Your task to perform on an android device: Clear the shopping cart on walmart.com. Image 0: 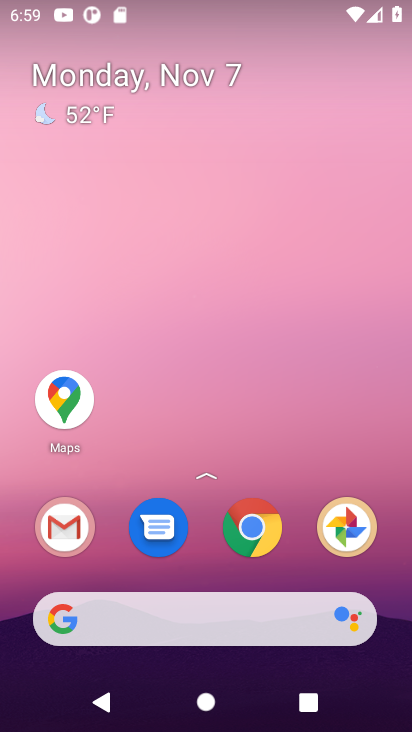
Step 0: click (249, 534)
Your task to perform on an android device: Clear the shopping cart on walmart.com. Image 1: 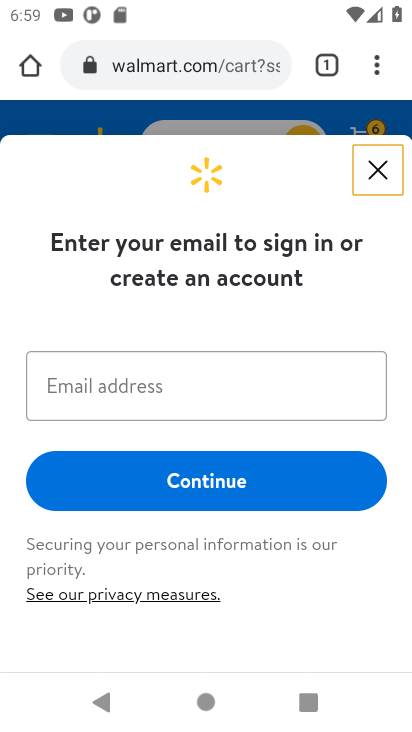
Step 1: click (183, 72)
Your task to perform on an android device: Clear the shopping cart on walmart.com. Image 2: 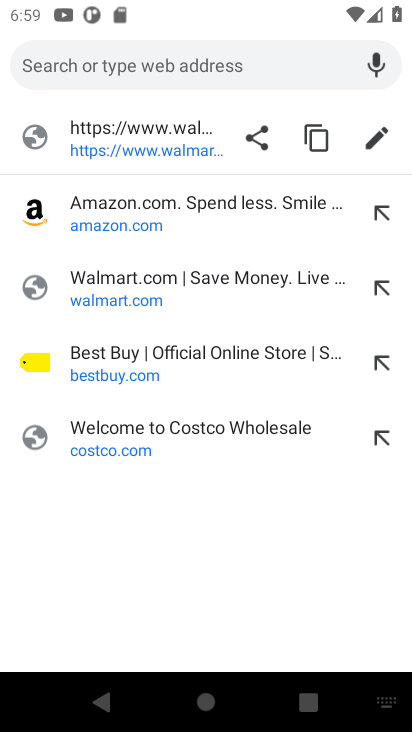
Step 2: press back button
Your task to perform on an android device: Clear the shopping cart on walmart.com. Image 3: 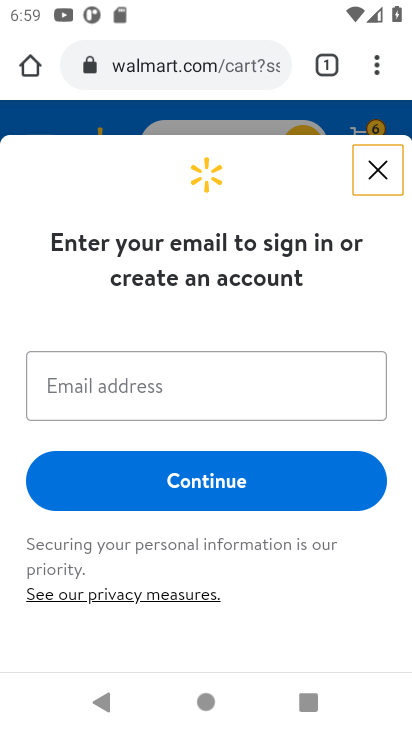
Step 3: click (372, 174)
Your task to perform on an android device: Clear the shopping cart on walmart.com. Image 4: 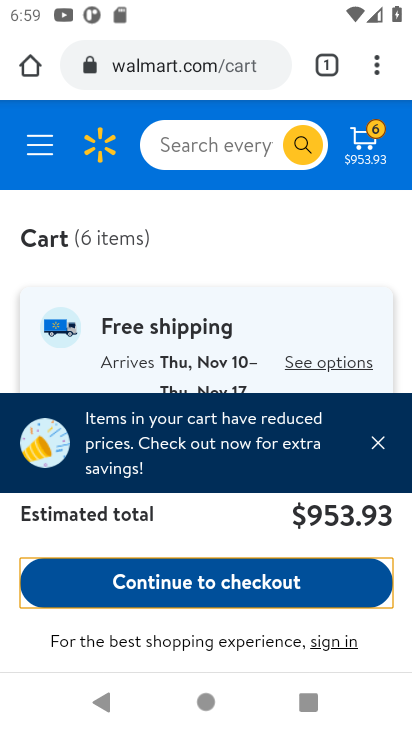
Step 4: click (377, 140)
Your task to perform on an android device: Clear the shopping cart on walmart.com. Image 5: 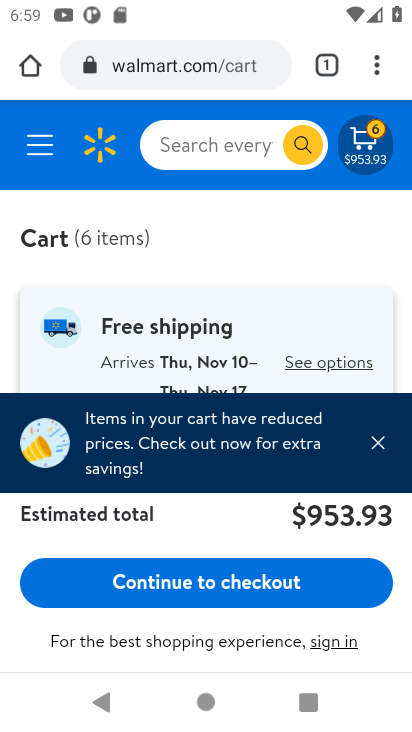
Step 5: click (377, 452)
Your task to perform on an android device: Clear the shopping cart on walmart.com. Image 6: 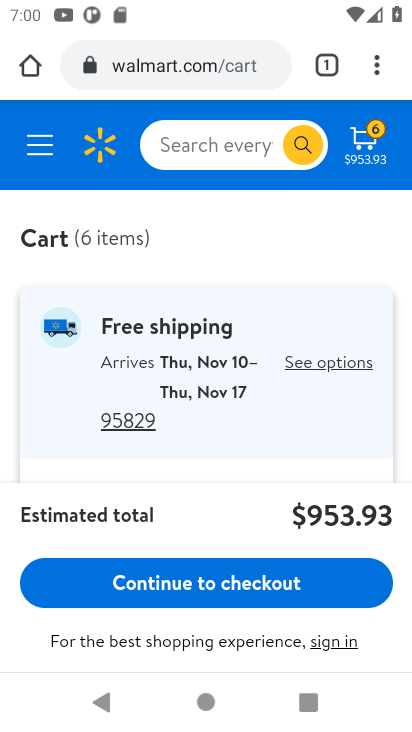
Step 6: drag from (260, 506) to (235, 218)
Your task to perform on an android device: Clear the shopping cart on walmart.com. Image 7: 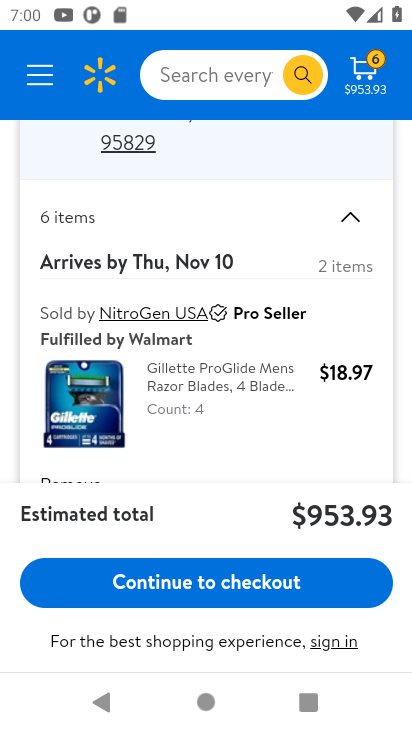
Step 7: drag from (262, 365) to (214, 23)
Your task to perform on an android device: Clear the shopping cart on walmart.com. Image 8: 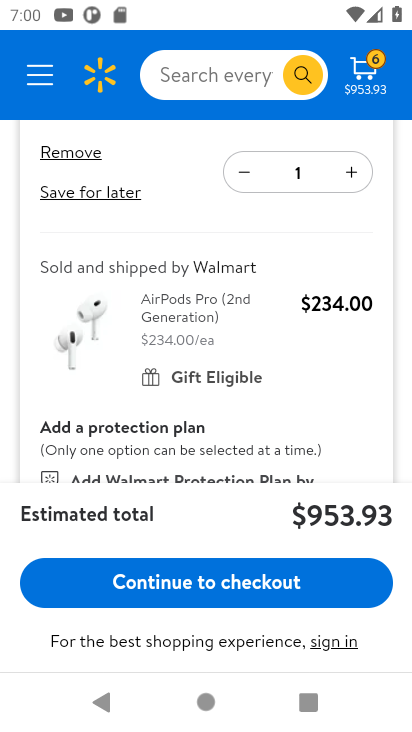
Step 8: click (83, 147)
Your task to perform on an android device: Clear the shopping cart on walmart.com. Image 9: 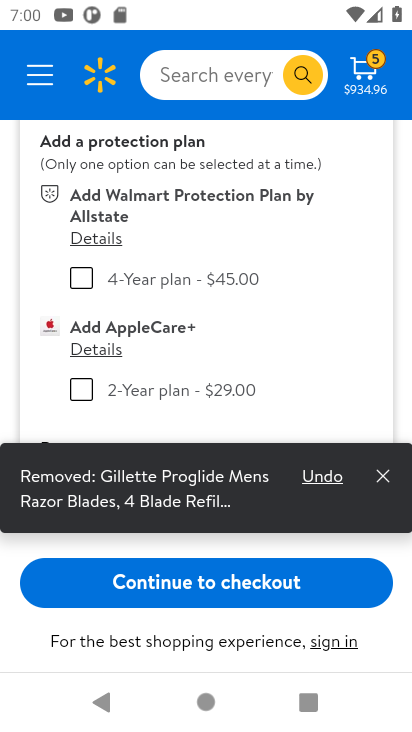
Step 9: click (389, 477)
Your task to perform on an android device: Clear the shopping cart on walmart.com. Image 10: 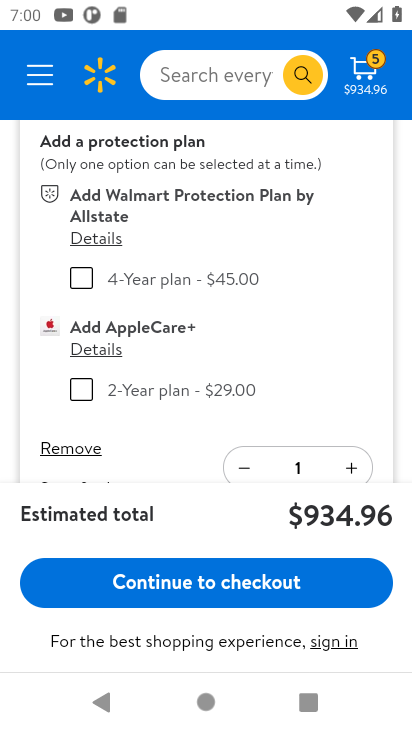
Step 10: drag from (214, 490) to (194, 351)
Your task to perform on an android device: Clear the shopping cart on walmart.com. Image 11: 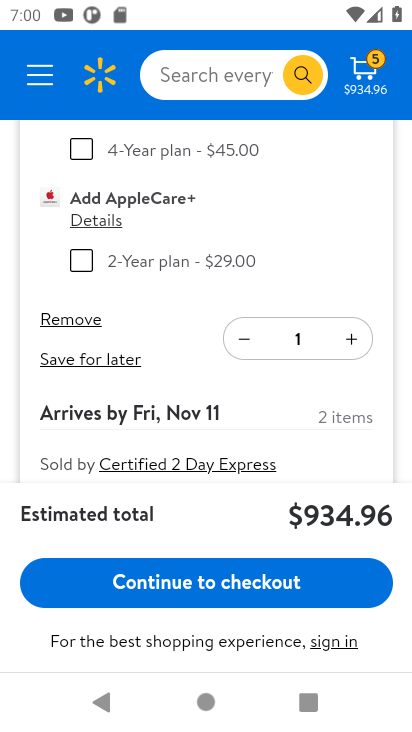
Step 11: click (60, 323)
Your task to perform on an android device: Clear the shopping cart on walmart.com. Image 12: 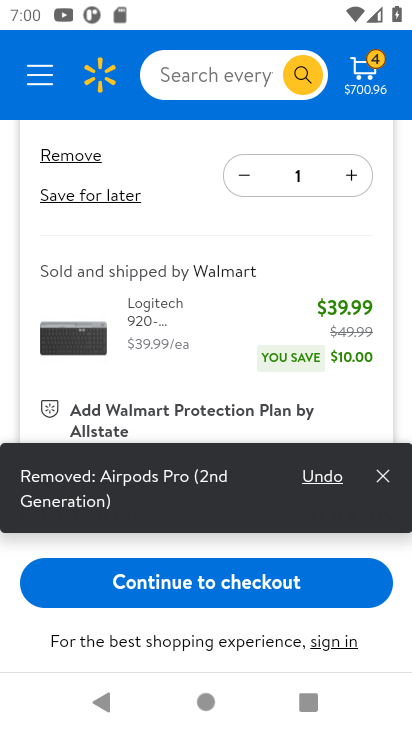
Step 12: click (57, 160)
Your task to perform on an android device: Clear the shopping cart on walmart.com. Image 13: 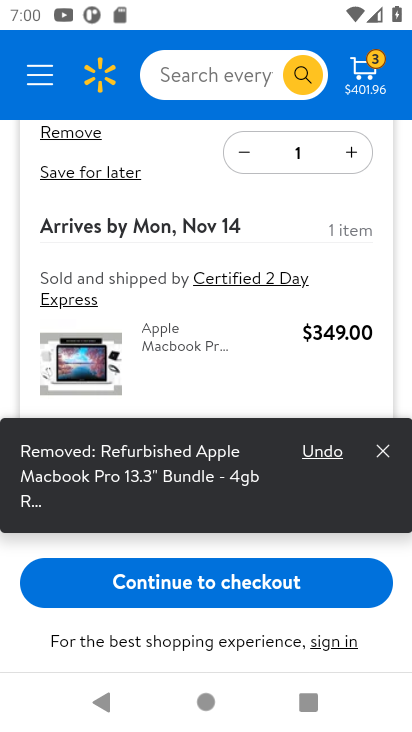
Step 13: click (60, 133)
Your task to perform on an android device: Clear the shopping cart on walmart.com. Image 14: 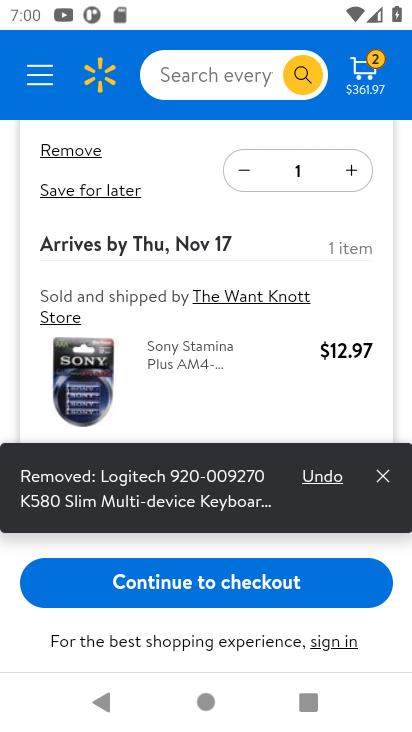
Step 14: click (72, 149)
Your task to perform on an android device: Clear the shopping cart on walmart.com. Image 15: 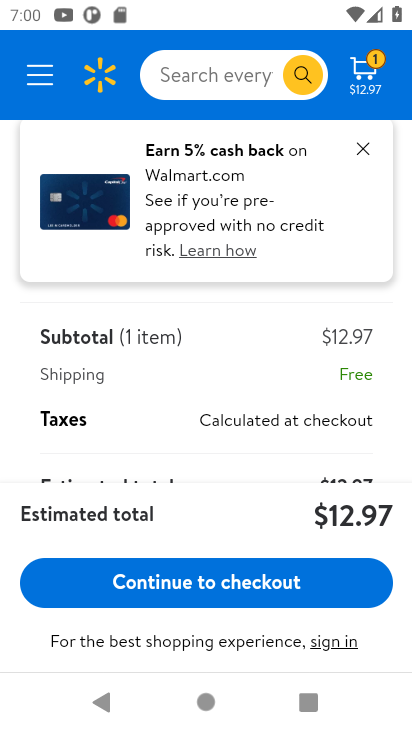
Step 15: drag from (117, 386) to (93, 180)
Your task to perform on an android device: Clear the shopping cart on walmart.com. Image 16: 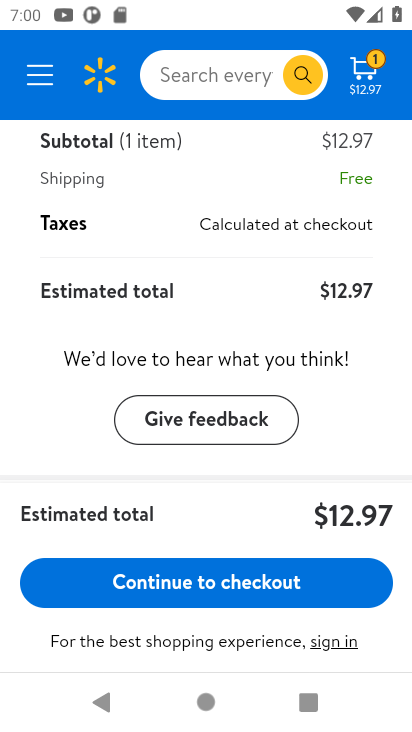
Step 16: drag from (93, 180) to (100, 626)
Your task to perform on an android device: Clear the shopping cart on walmart.com. Image 17: 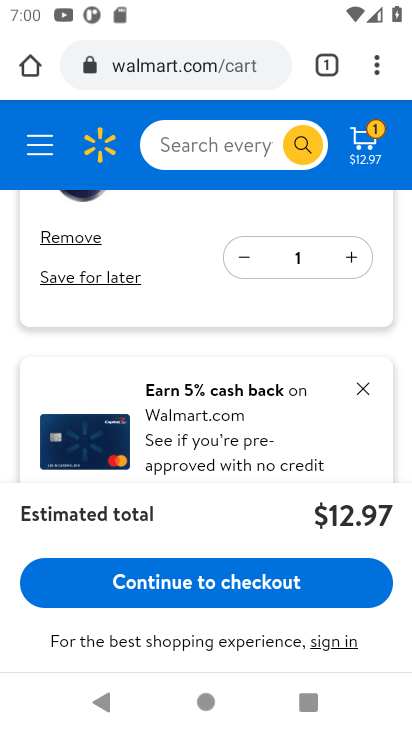
Step 17: click (60, 241)
Your task to perform on an android device: Clear the shopping cart on walmart.com. Image 18: 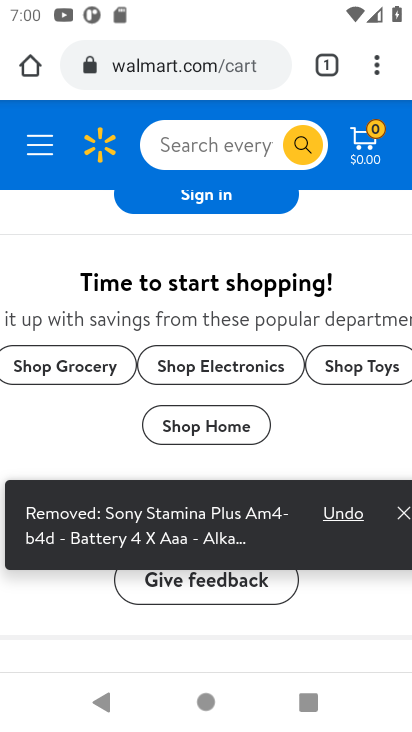
Step 18: task complete